Your task to perform on an android device: Go to Wikipedia Image 0: 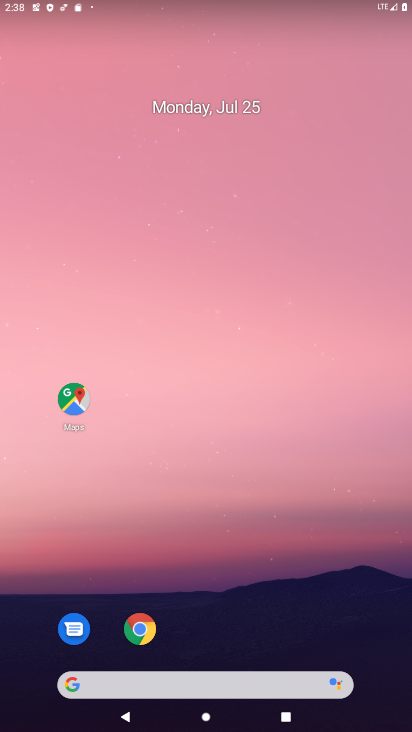
Step 0: drag from (181, 634) to (177, 159)
Your task to perform on an android device: Go to Wikipedia Image 1: 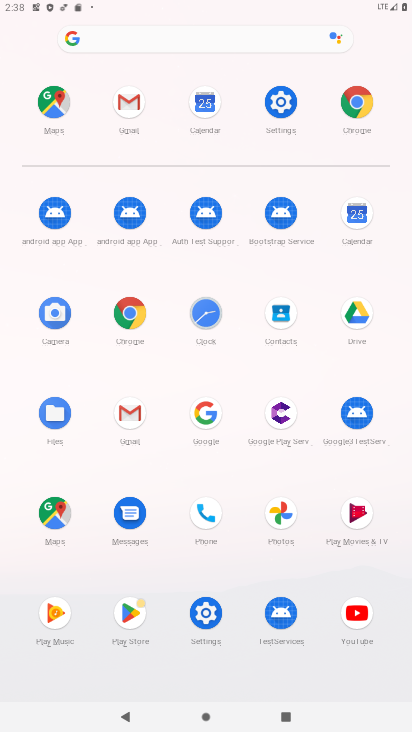
Step 1: click (139, 39)
Your task to perform on an android device: Go to Wikipedia Image 2: 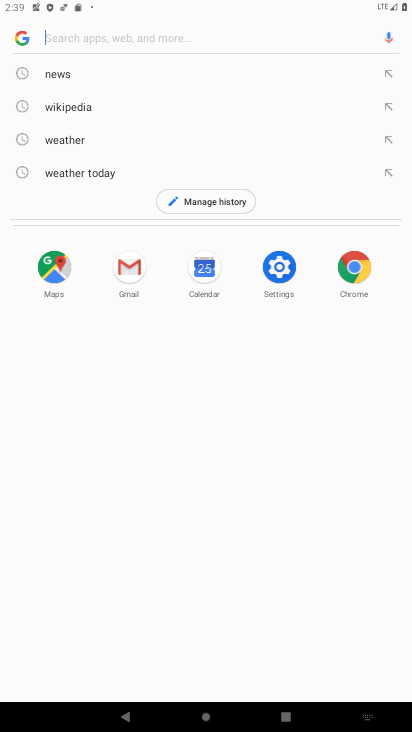
Step 2: click (83, 103)
Your task to perform on an android device: Go to Wikipedia Image 3: 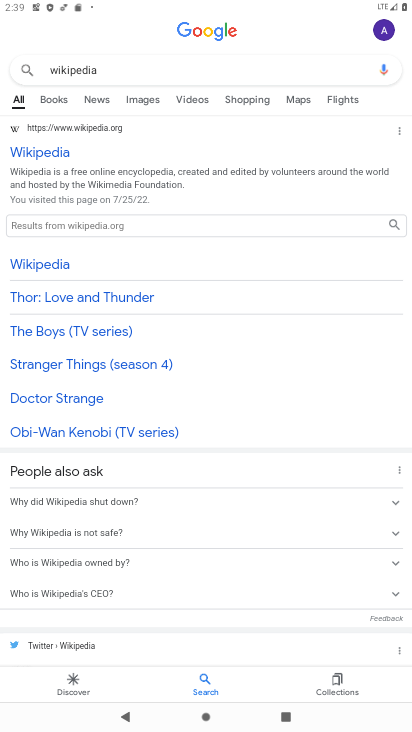
Step 3: drag from (212, 445) to (264, 723)
Your task to perform on an android device: Go to Wikipedia Image 4: 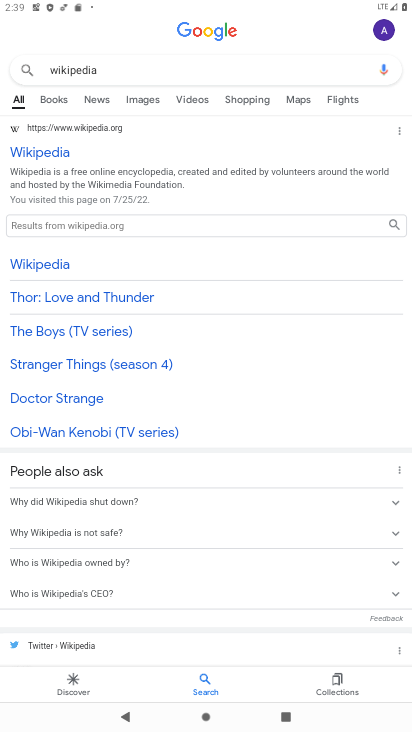
Step 4: click (32, 150)
Your task to perform on an android device: Go to Wikipedia Image 5: 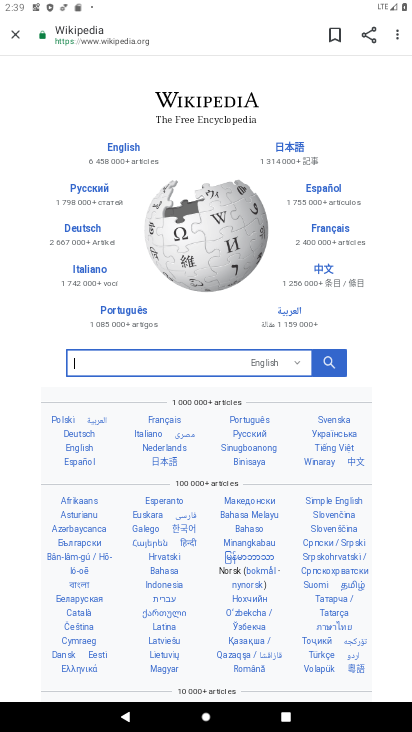
Step 5: task complete